Your task to perform on an android device: find which apps use the phone's location Image 0: 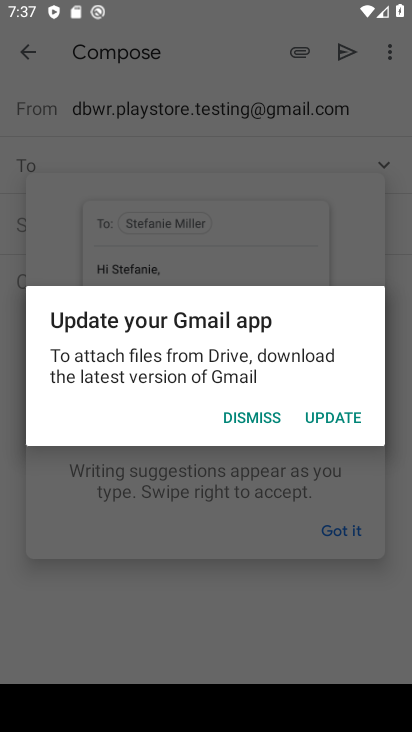
Step 0: press home button
Your task to perform on an android device: find which apps use the phone's location Image 1: 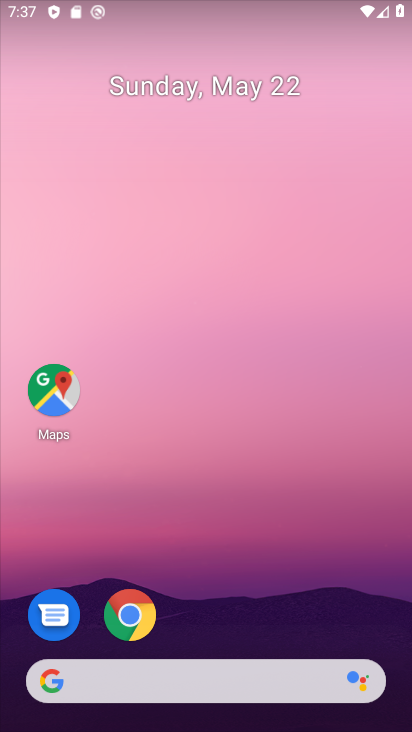
Step 1: drag from (240, 649) to (172, 20)
Your task to perform on an android device: find which apps use the phone's location Image 2: 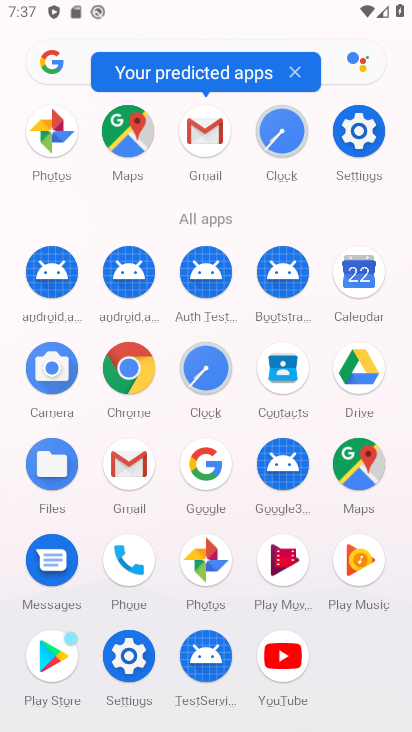
Step 2: click (357, 112)
Your task to perform on an android device: find which apps use the phone's location Image 3: 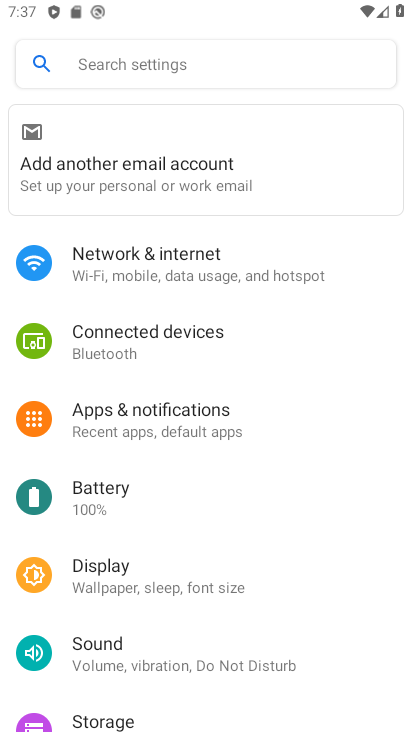
Step 3: drag from (187, 633) to (188, 82)
Your task to perform on an android device: find which apps use the phone's location Image 4: 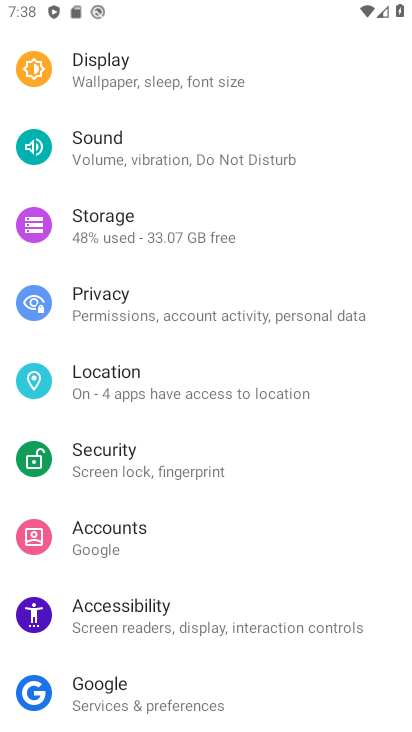
Step 4: click (79, 367)
Your task to perform on an android device: find which apps use the phone's location Image 5: 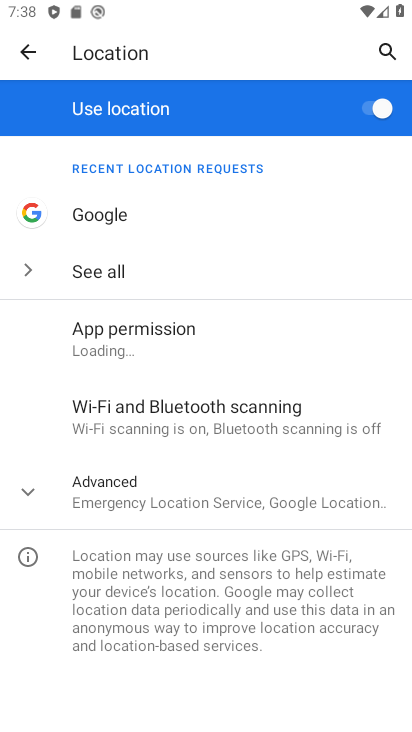
Step 5: click (103, 341)
Your task to perform on an android device: find which apps use the phone's location Image 6: 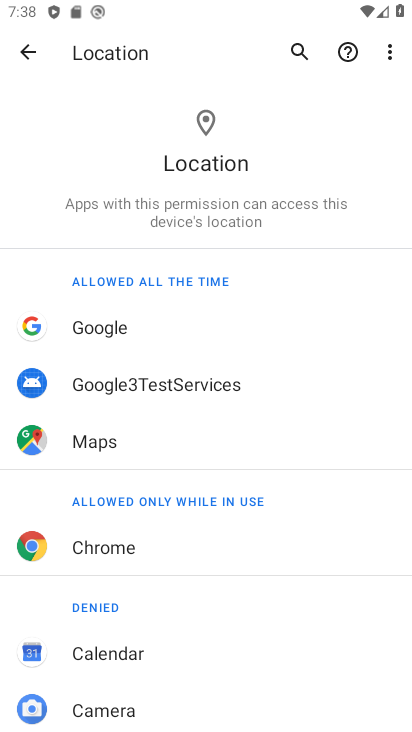
Step 6: task complete